Your task to perform on an android device: change the clock display to digital Image 0: 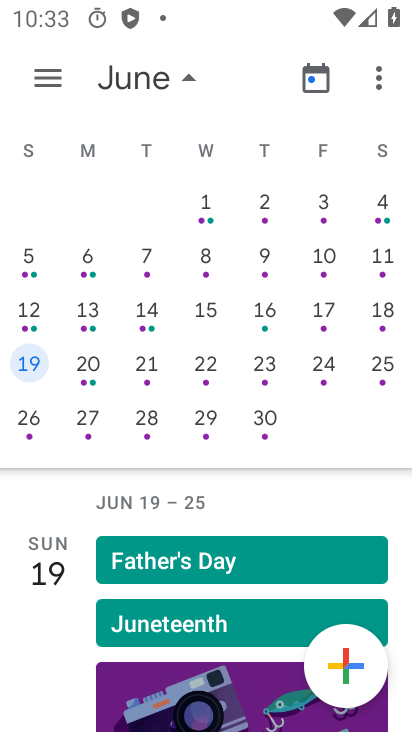
Step 0: press home button
Your task to perform on an android device: change the clock display to digital Image 1: 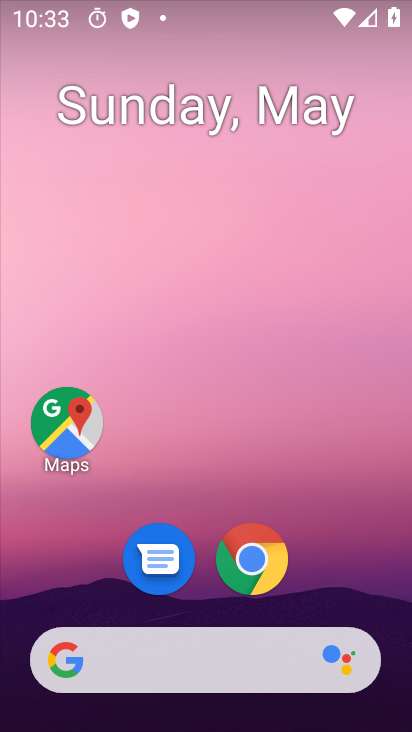
Step 1: drag from (385, 585) to (390, 106)
Your task to perform on an android device: change the clock display to digital Image 2: 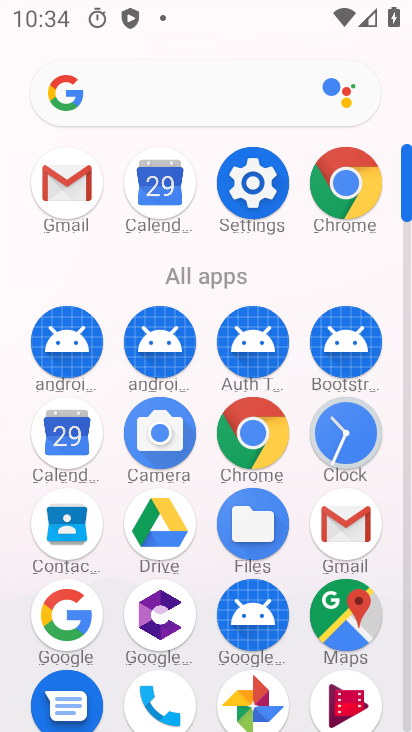
Step 2: click (347, 435)
Your task to perform on an android device: change the clock display to digital Image 3: 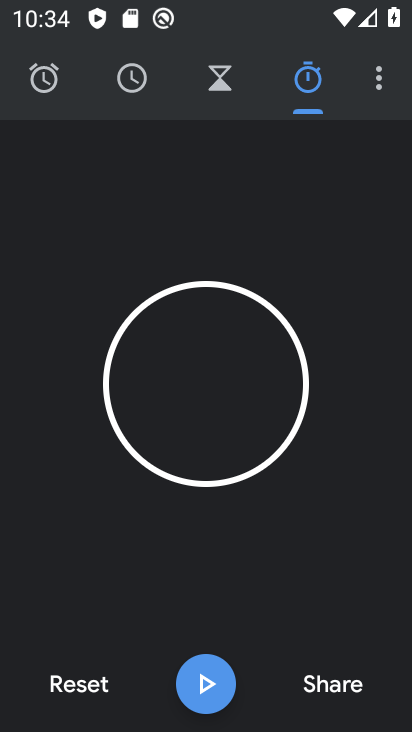
Step 3: drag from (378, 94) to (266, 168)
Your task to perform on an android device: change the clock display to digital Image 4: 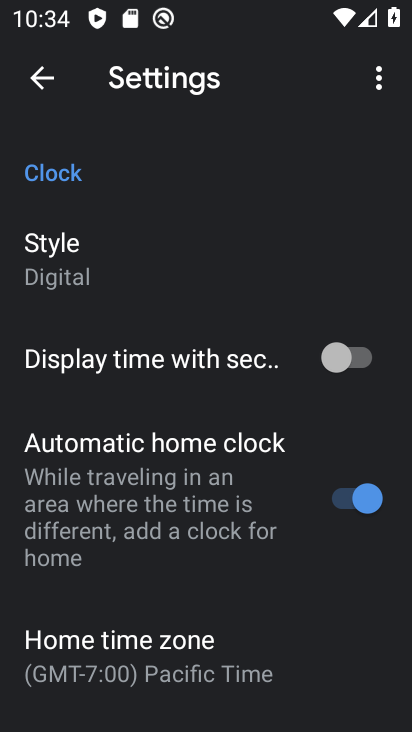
Step 4: drag from (223, 596) to (230, 261)
Your task to perform on an android device: change the clock display to digital Image 5: 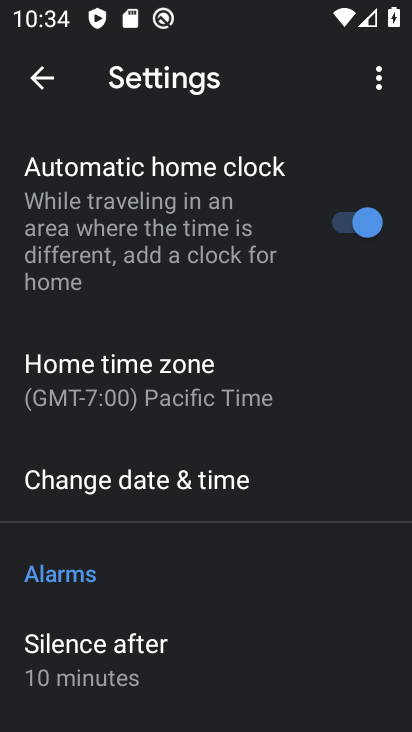
Step 5: drag from (233, 604) to (251, 304)
Your task to perform on an android device: change the clock display to digital Image 6: 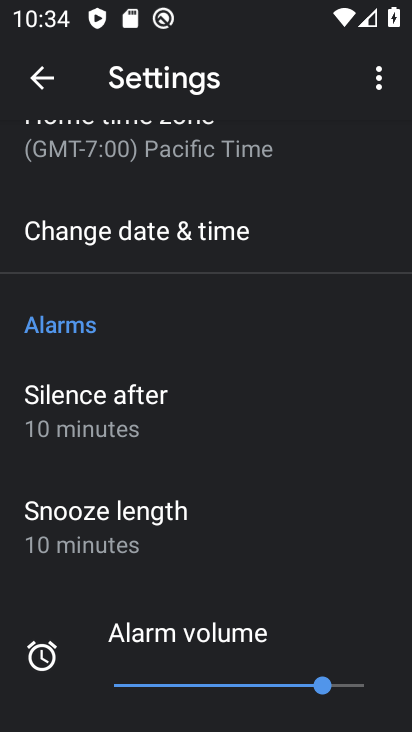
Step 6: drag from (255, 299) to (244, 576)
Your task to perform on an android device: change the clock display to digital Image 7: 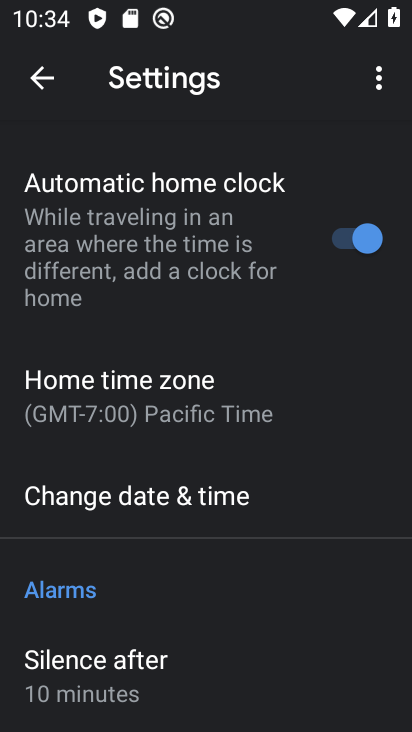
Step 7: click (230, 498)
Your task to perform on an android device: change the clock display to digital Image 8: 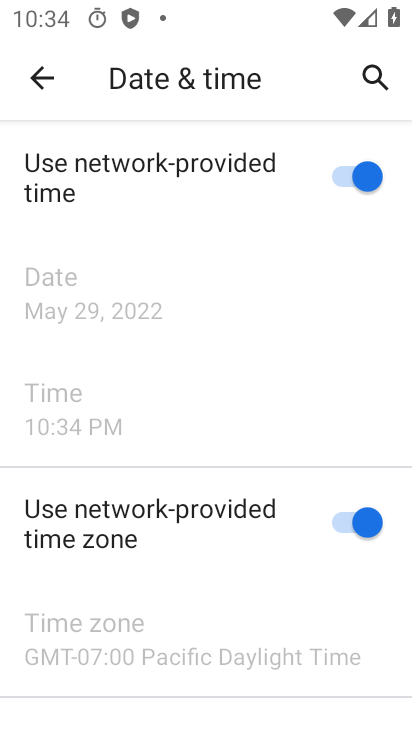
Step 8: click (48, 75)
Your task to perform on an android device: change the clock display to digital Image 9: 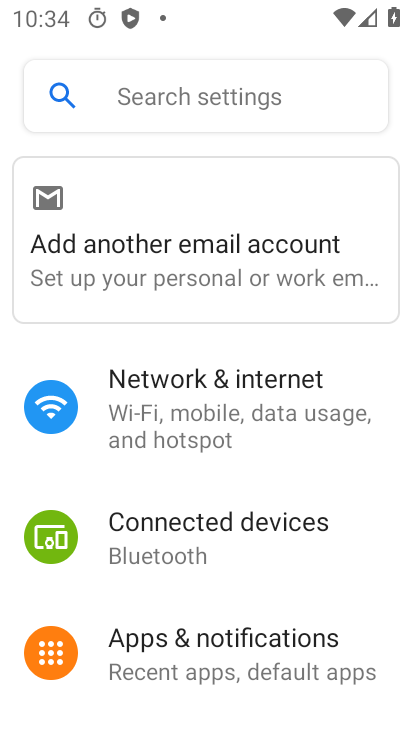
Step 9: press home button
Your task to perform on an android device: change the clock display to digital Image 10: 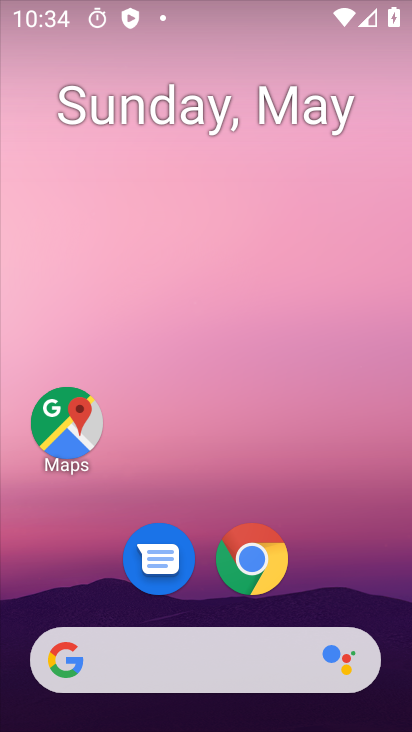
Step 10: drag from (356, 563) to (351, 153)
Your task to perform on an android device: change the clock display to digital Image 11: 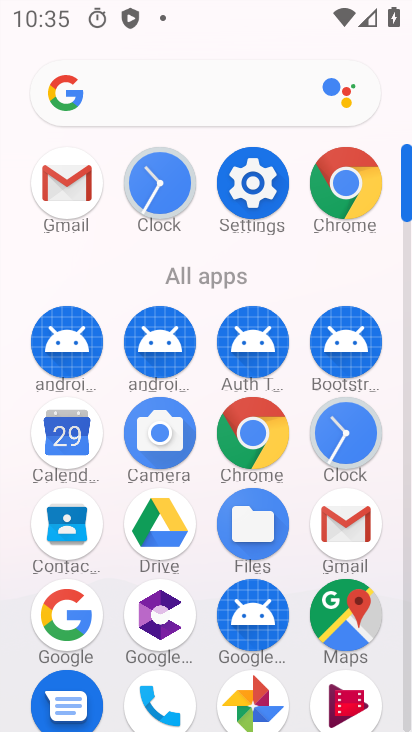
Step 11: click (331, 418)
Your task to perform on an android device: change the clock display to digital Image 12: 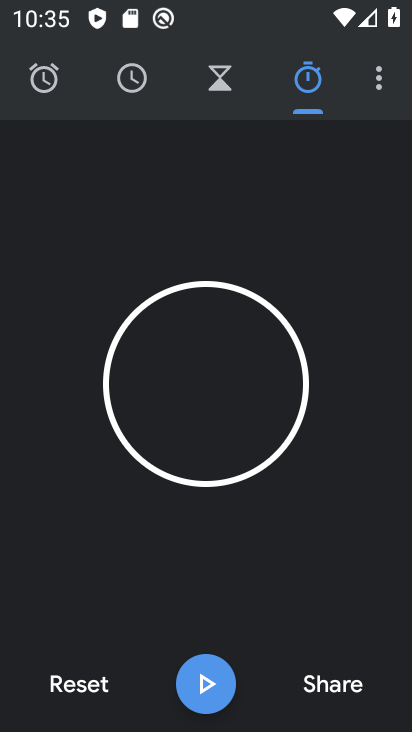
Step 12: click (387, 89)
Your task to perform on an android device: change the clock display to digital Image 13: 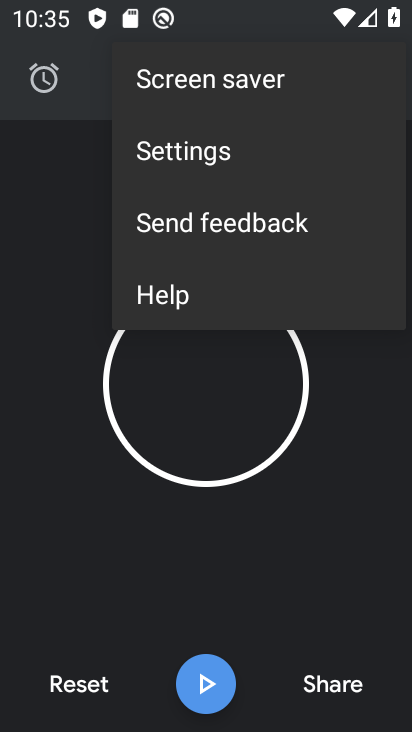
Step 13: click (162, 159)
Your task to perform on an android device: change the clock display to digital Image 14: 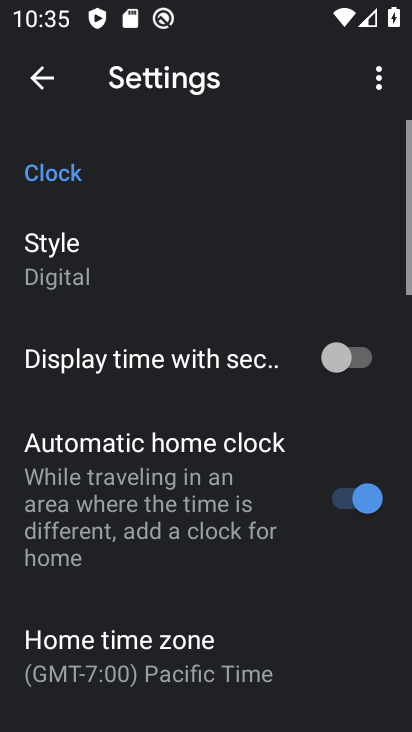
Step 14: click (64, 250)
Your task to perform on an android device: change the clock display to digital Image 15: 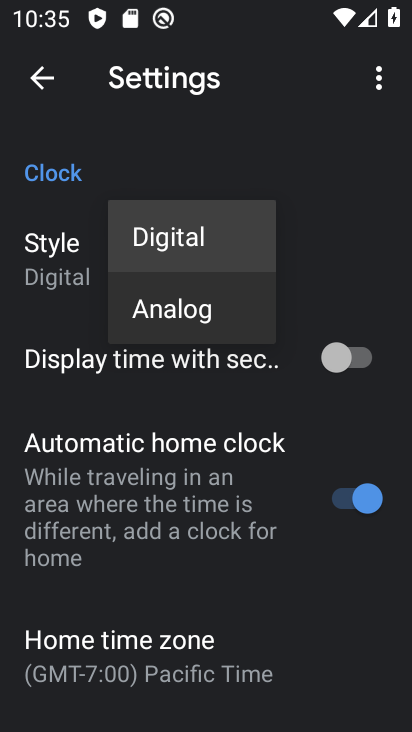
Step 15: task complete